Your task to perform on an android device: Open Google Maps Image 0: 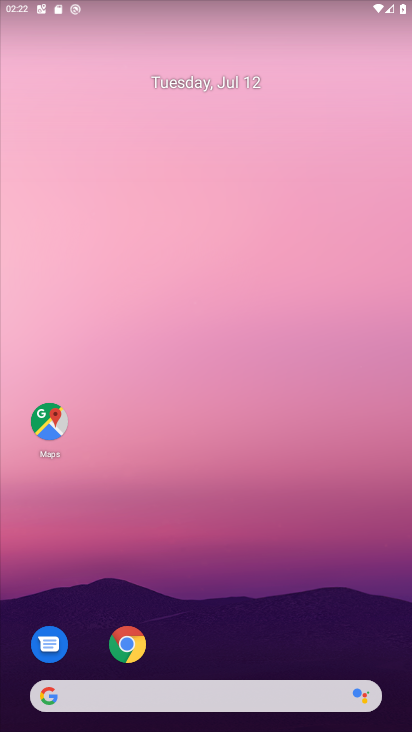
Step 0: drag from (203, 680) to (158, 173)
Your task to perform on an android device: Open Google Maps Image 1: 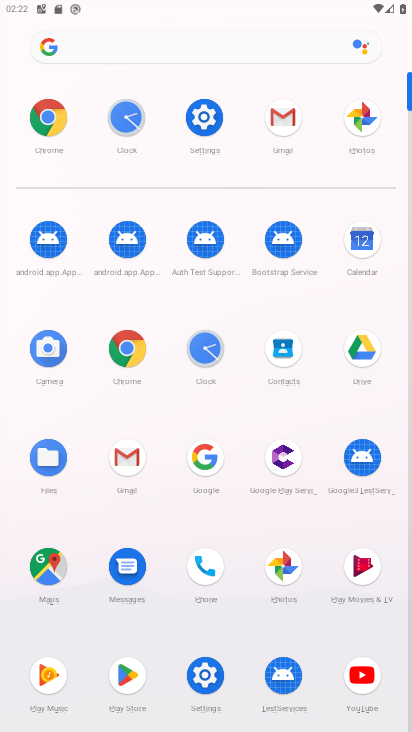
Step 1: click (44, 568)
Your task to perform on an android device: Open Google Maps Image 2: 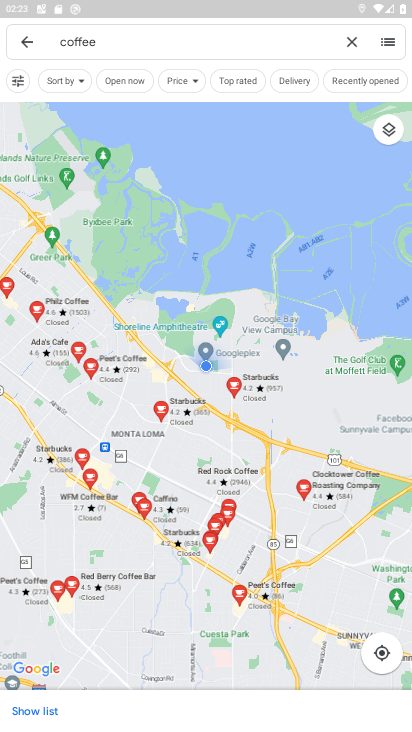
Step 2: task complete